Your task to perform on an android device: delete location history Image 0: 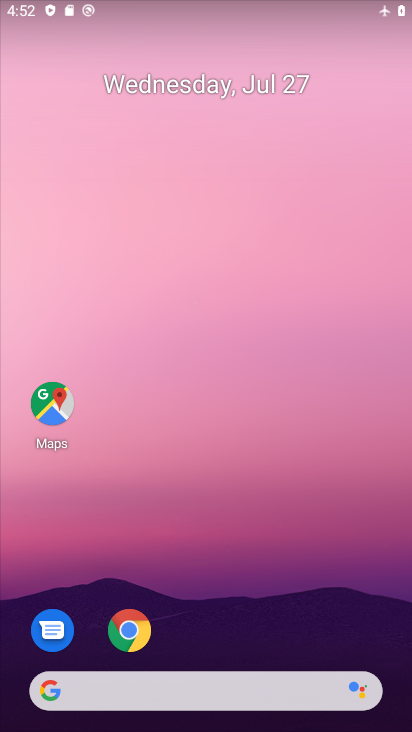
Step 0: drag from (226, 631) to (196, 222)
Your task to perform on an android device: delete location history Image 1: 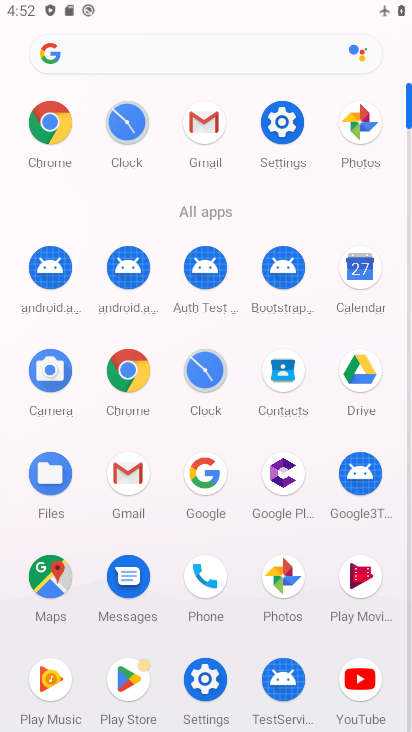
Step 1: click (16, 582)
Your task to perform on an android device: delete location history Image 2: 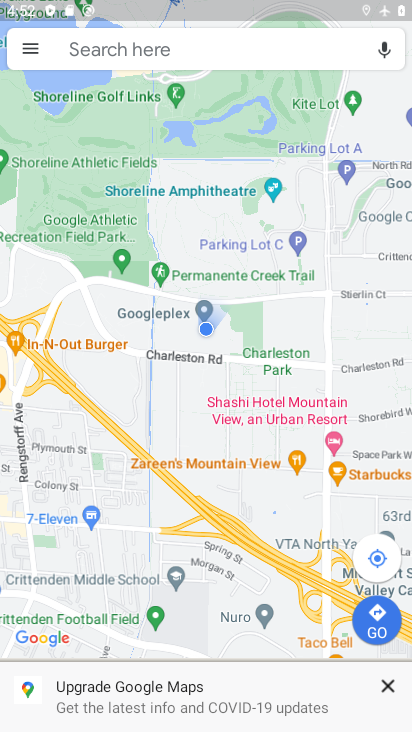
Step 2: click (17, 48)
Your task to perform on an android device: delete location history Image 3: 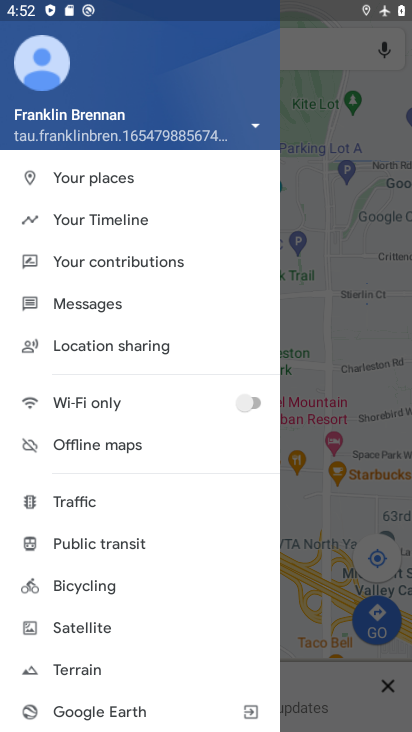
Step 3: click (142, 229)
Your task to perform on an android device: delete location history Image 4: 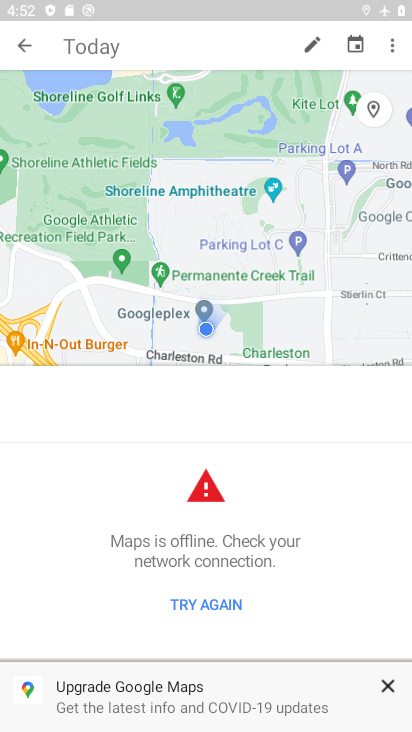
Step 4: task complete